Your task to perform on an android device: toggle location history Image 0: 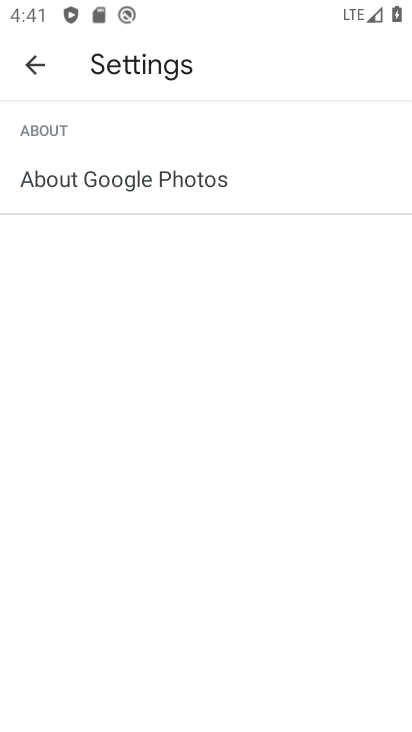
Step 0: press home button
Your task to perform on an android device: toggle location history Image 1: 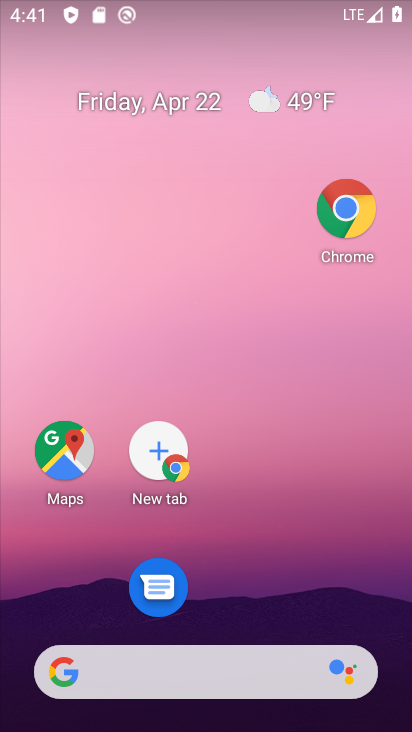
Step 1: drag from (262, 605) to (257, 264)
Your task to perform on an android device: toggle location history Image 2: 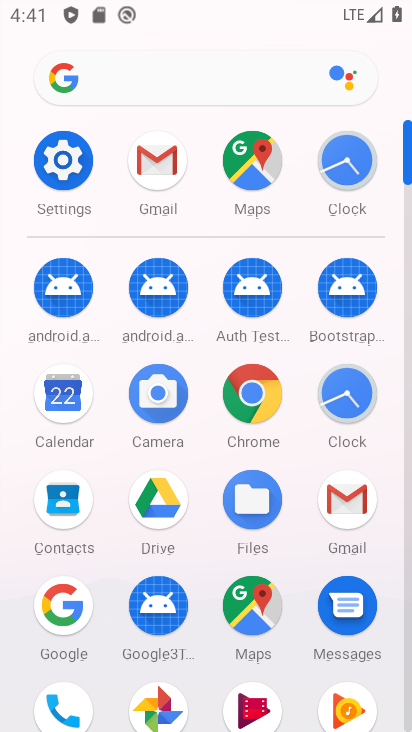
Step 2: click (62, 160)
Your task to perform on an android device: toggle location history Image 3: 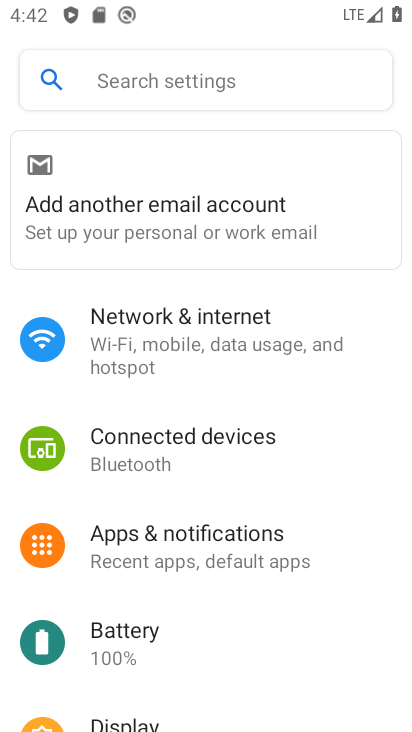
Step 3: drag from (195, 689) to (230, 315)
Your task to perform on an android device: toggle location history Image 4: 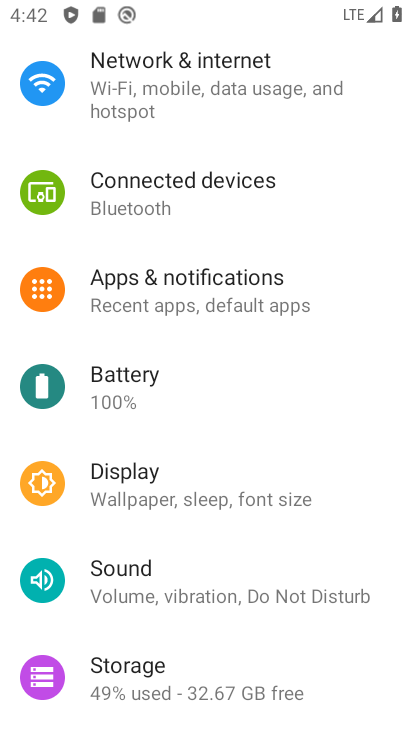
Step 4: drag from (108, 552) to (162, 235)
Your task to perform on an android device: toggle location history Image 5: 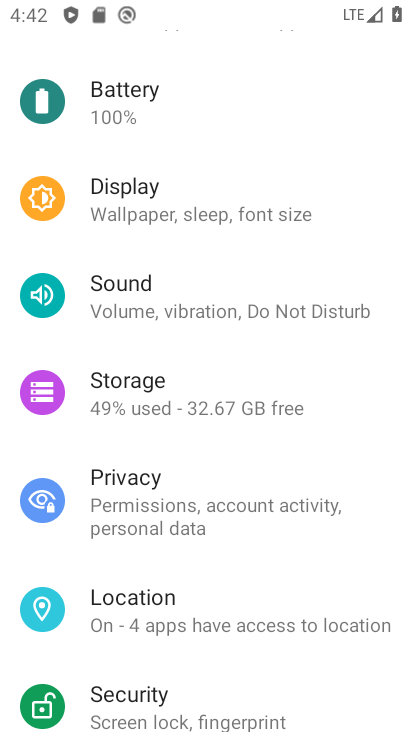
Step 5: click (86, 631)
Your task to perform on an android device: toggle location history Image 6: 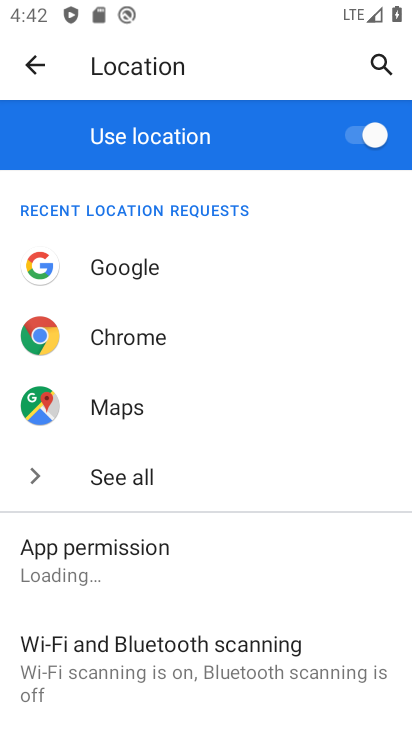
Step 6: drag from (86, 631) to (193, 252)
Your task to perform on an android device: toggle location history Image 7: 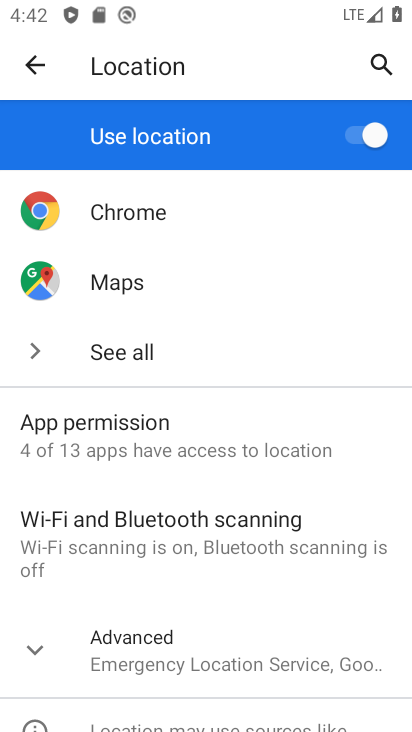
Step 7: click (139, 655)
Your task to perform on an android device: toggle location history Image 8: 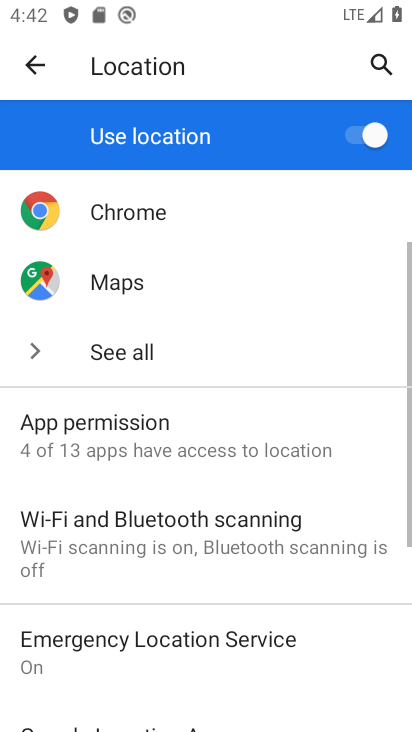
Step 8: drag from (139, 655) to (171, 269)
Your task to perform on an android device: toggle location history Image 9: 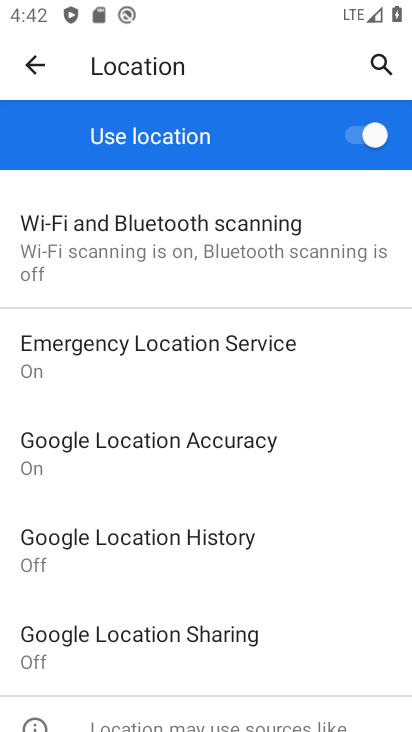
Step 9: click (183, 536)
Your task to perform on an android device: toggle location history Image 10: 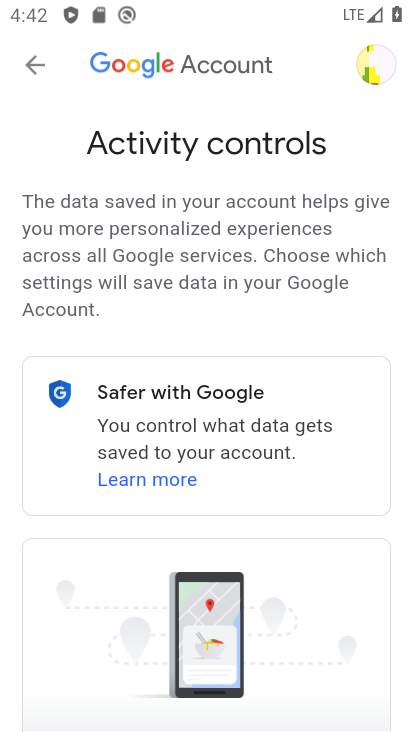
Step 10: drag from (264, 520) to (292, 164)
Your task to perform on an android device: toggle location history Image 11: 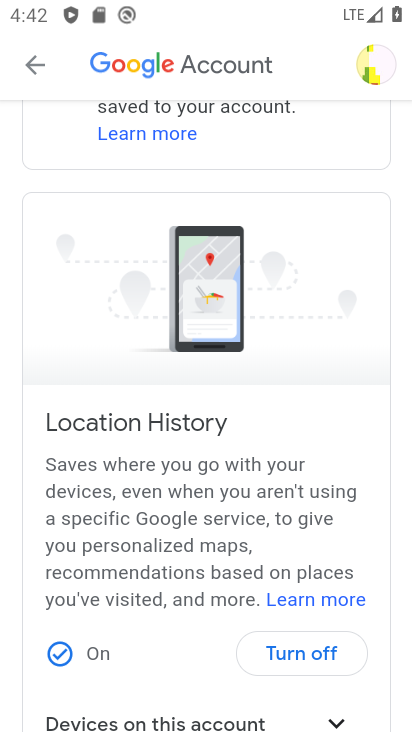
Step 11: click (333, 644)
Your task to perform on an android device: toggle location history Image 12: 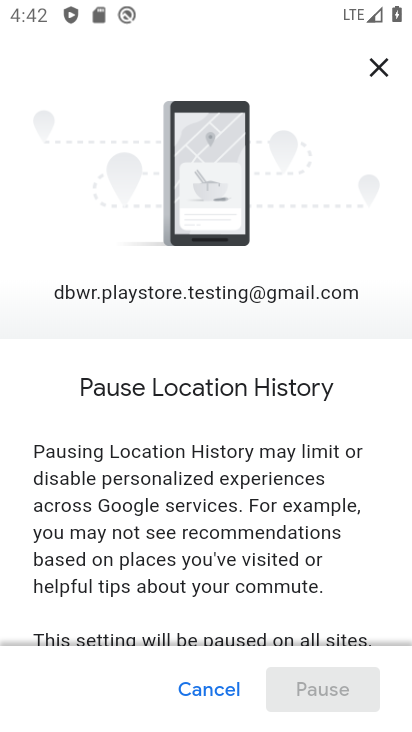
Step 12: drag from (254, 628) to (295, 265)
Your task to perform on an android device: toggle location history Image 13: 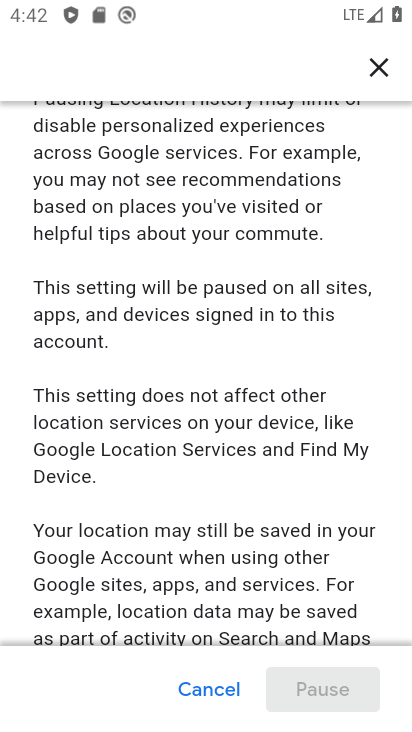
Step 13: drag from (223, 626) to (255, 132)
Your task to perform on an android device: toggle location history Image 14: 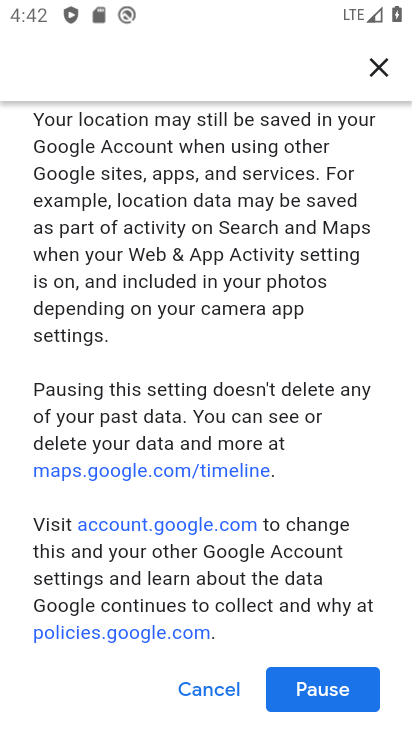
Step 14: click (326, 686)
Your task to perform on an android device: toggle location history Image 15: 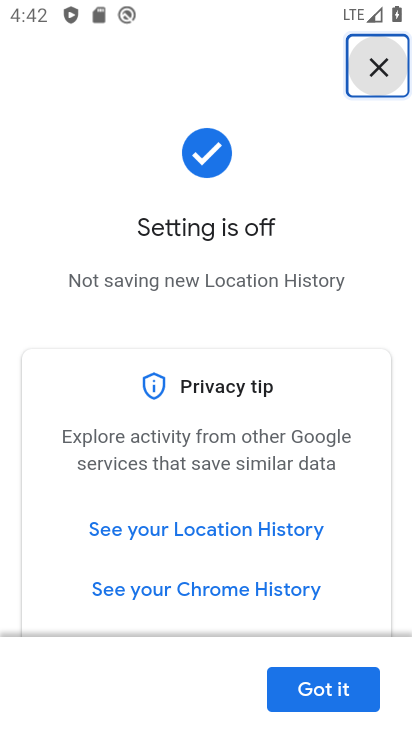
Step 15: click (311, 705)
Your task to perform on an android device: toggle location history Image 16: 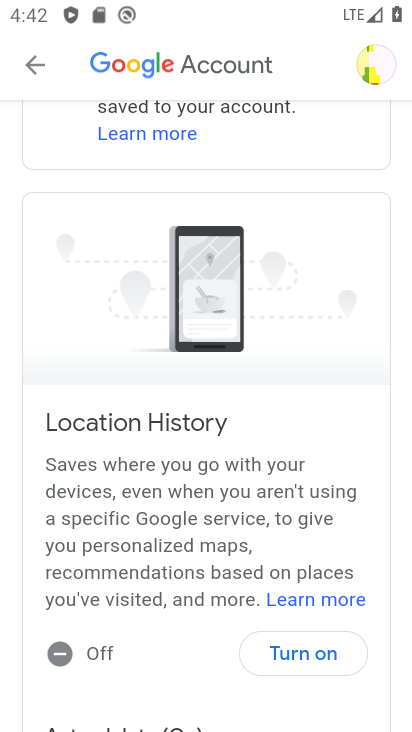
Step 16: task complete